Your task to perform on an android device: Add lg ultragear to the cart on target Image 0: 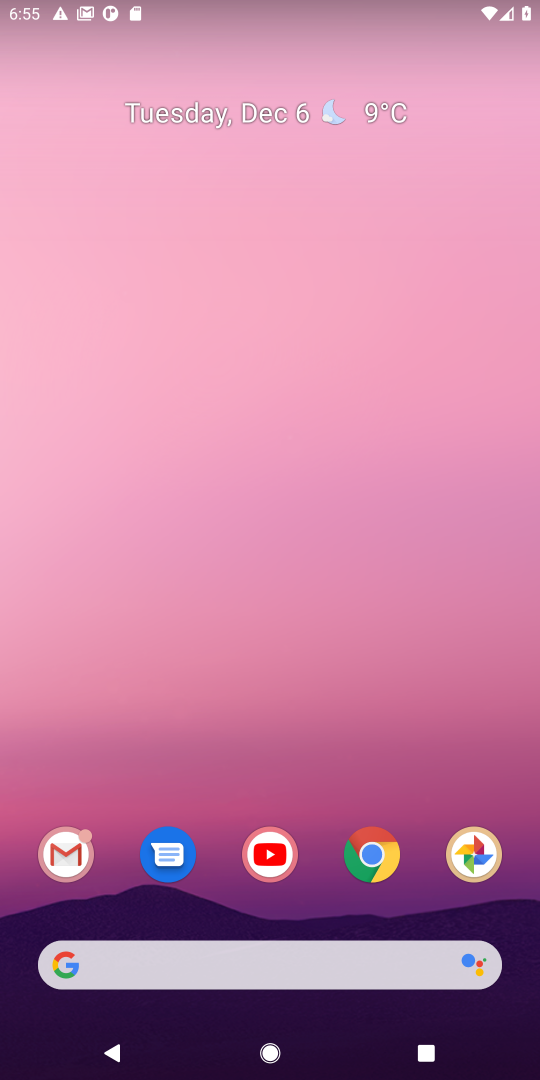
Step 0: click (383, 849)
Your task to perform on an android device: Add lg ultragear to the cart on target Image 1: 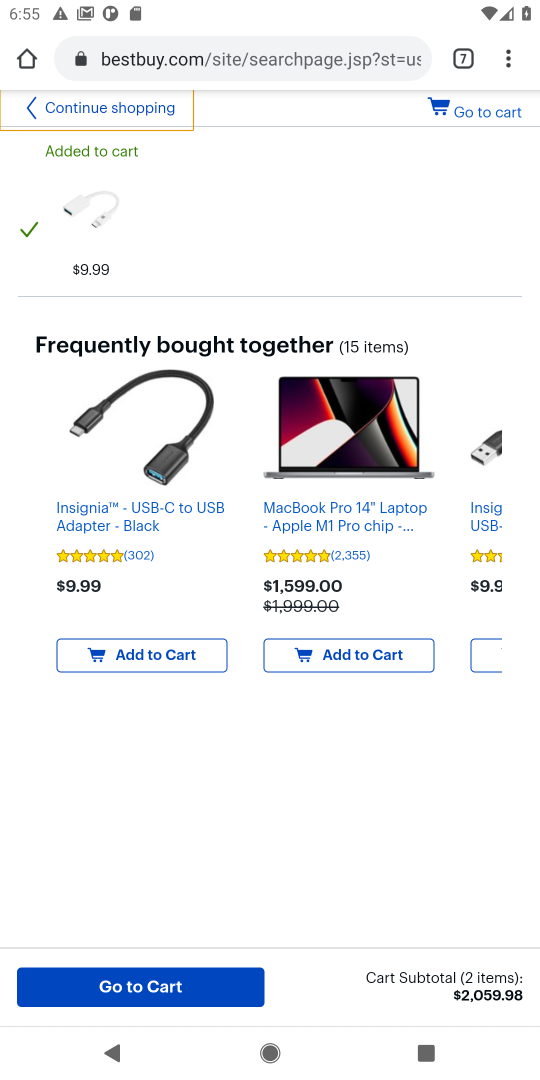
Step 1: click (461, 63)
Your task to perform on an android device: Add lg ultragear to the cart on target Image 2: 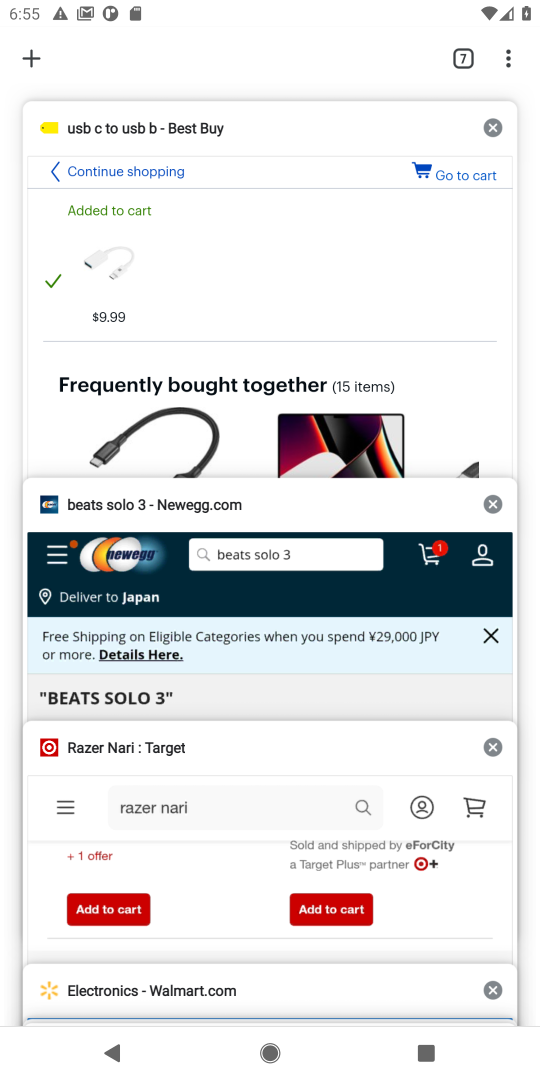
Step 2: click (211, 769)
Your task to perform on an android device: Add lg ultragear to the cart on target Image 3: 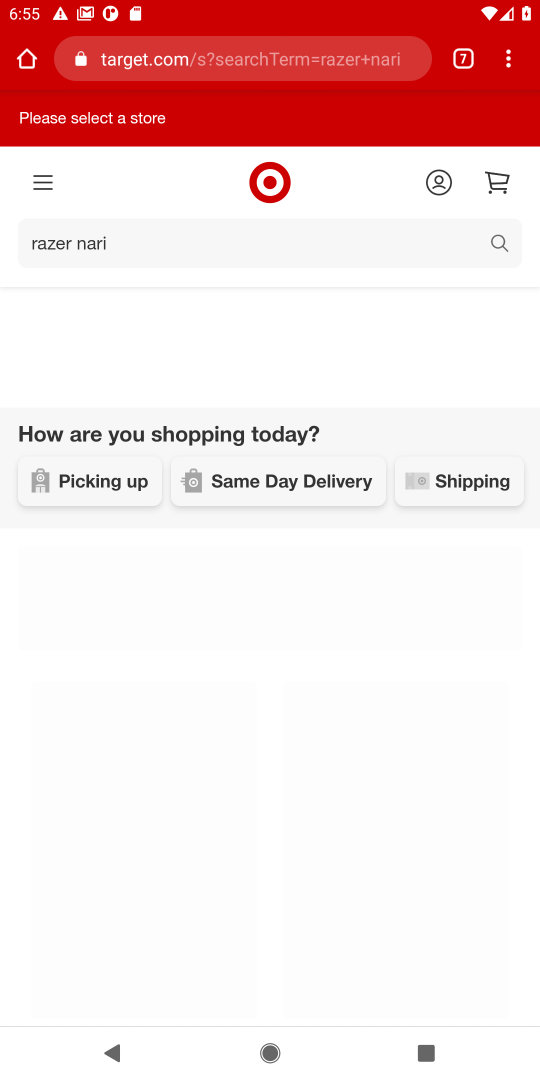
Step 3: click (431, 235)
Your task to perform on an android device: Add lg ultragear to the cart on target Image 4: 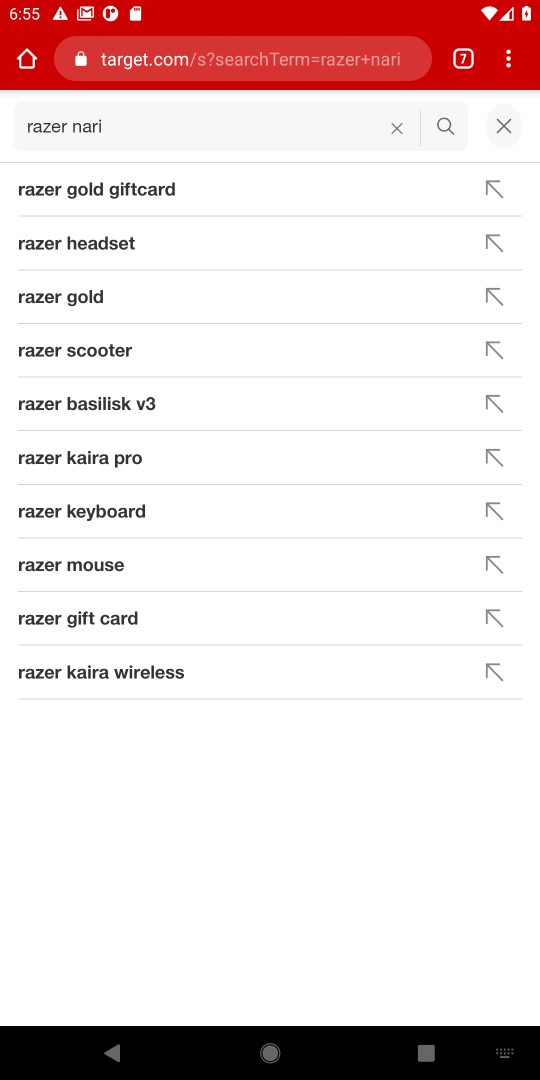
Step 4: click (398, 134)
Your task to perform on an android device: Add lg ultragear to the cart on target Image 5: 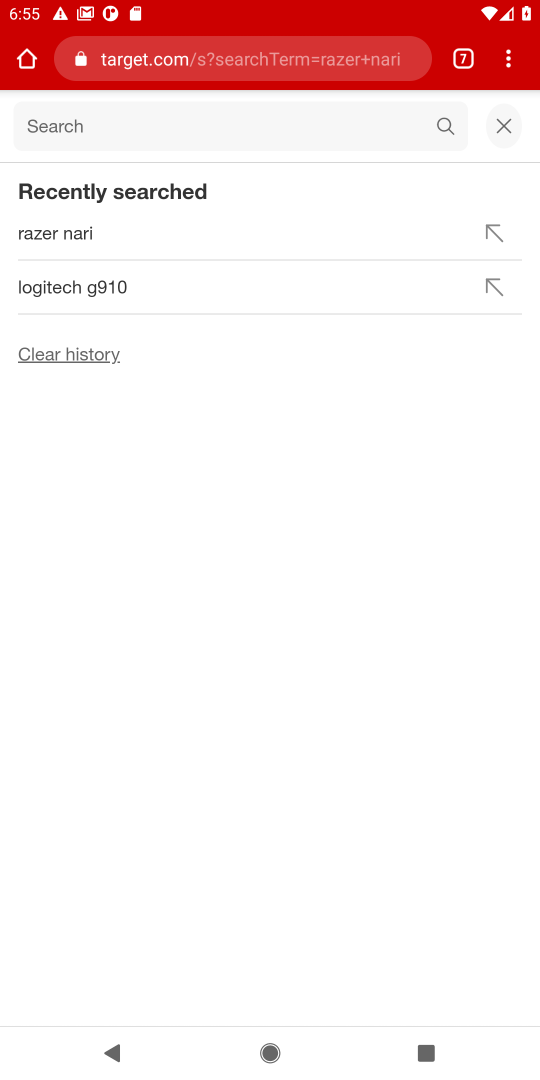
Step 5: type "lg ultragear"
Your task to perform on an android device: Add lg ultragear to the cart on target Image 6: 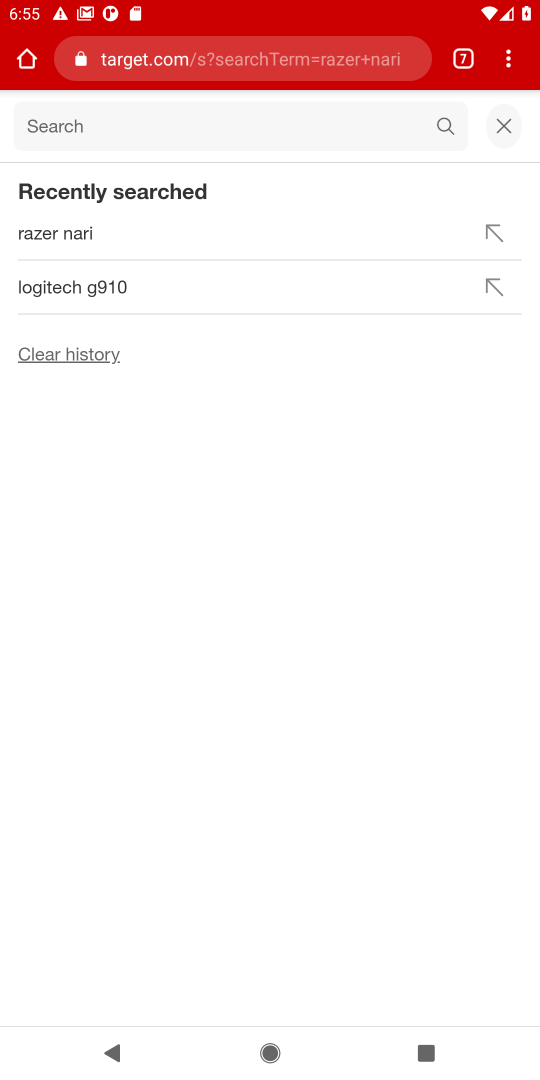
Step 6: click (341, 133)
Your task to perform on an android device: Add lg ultragear to the cart on target Image 7: 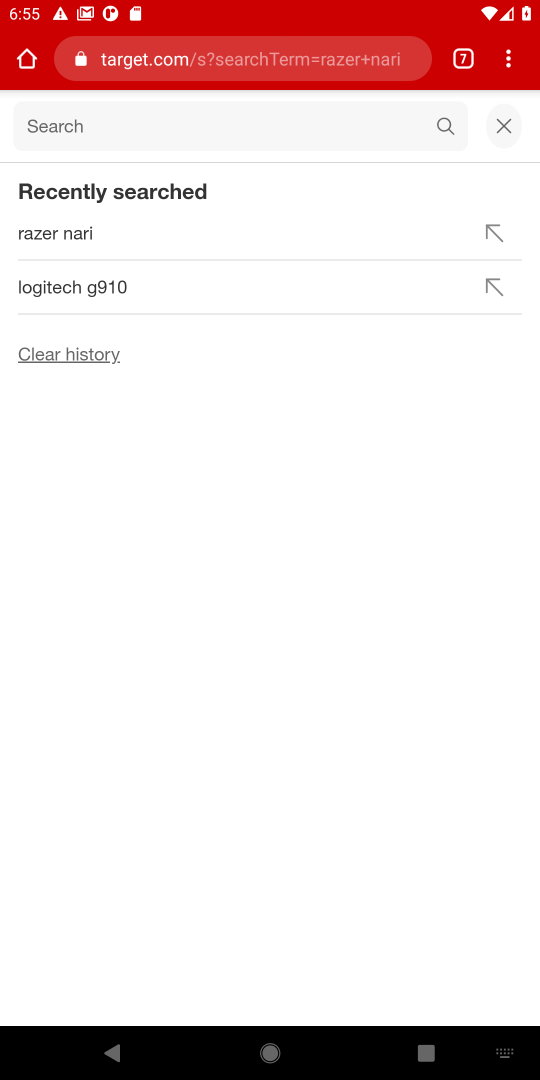
Step 7: type "lg ultragear"
Your task to perform on an android device: Add lg ultragear to the cart on target Image 8: 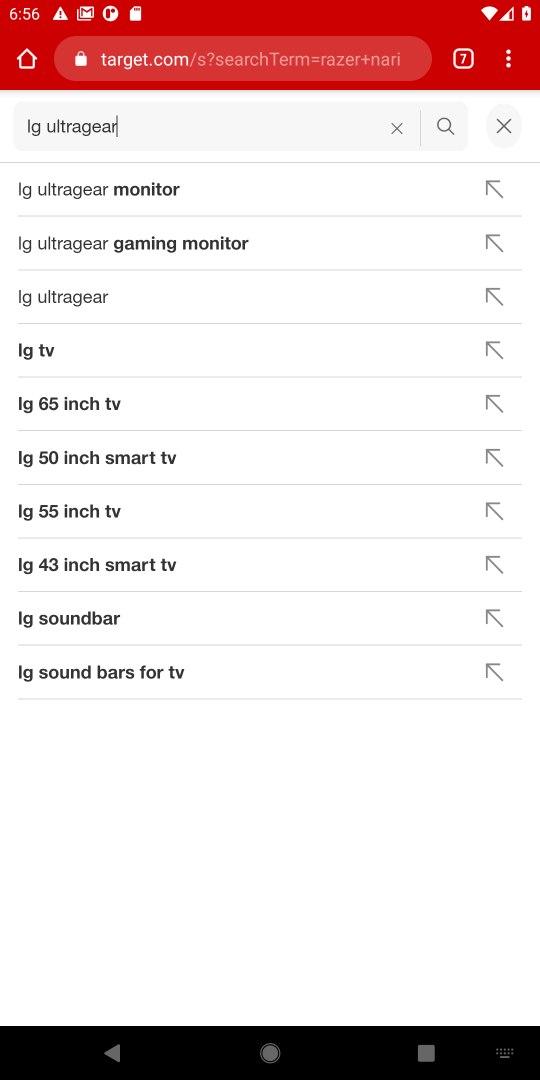
Step 8: click (54, 295)
Your task to perform on an android device: Add lg ultragear to the cart on target Image 9: 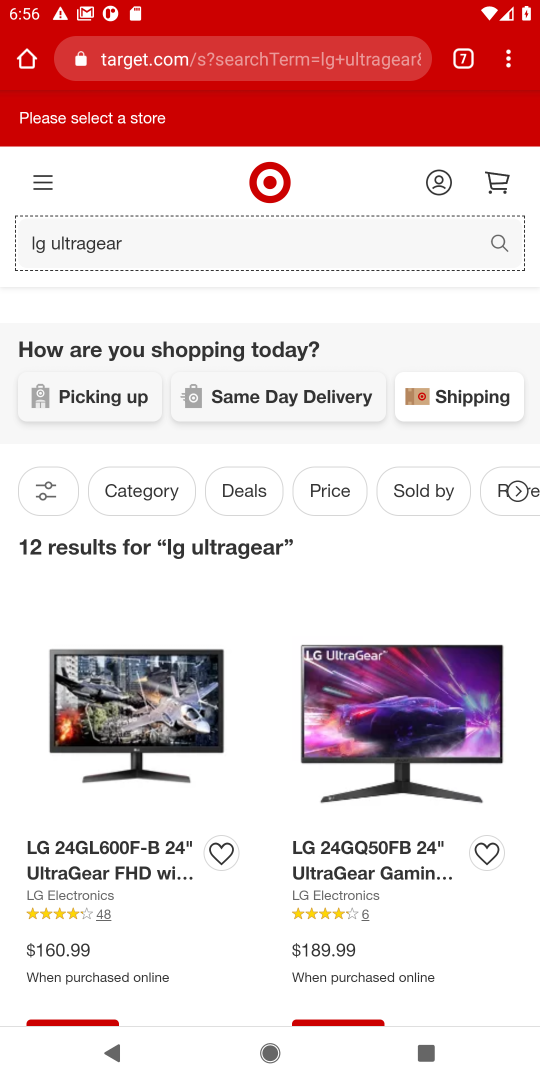
Step 9: drag from (228, 832) to (301, 447)
Your task to perform on an android device: Add lg ultragear to the cart on target Image 10: 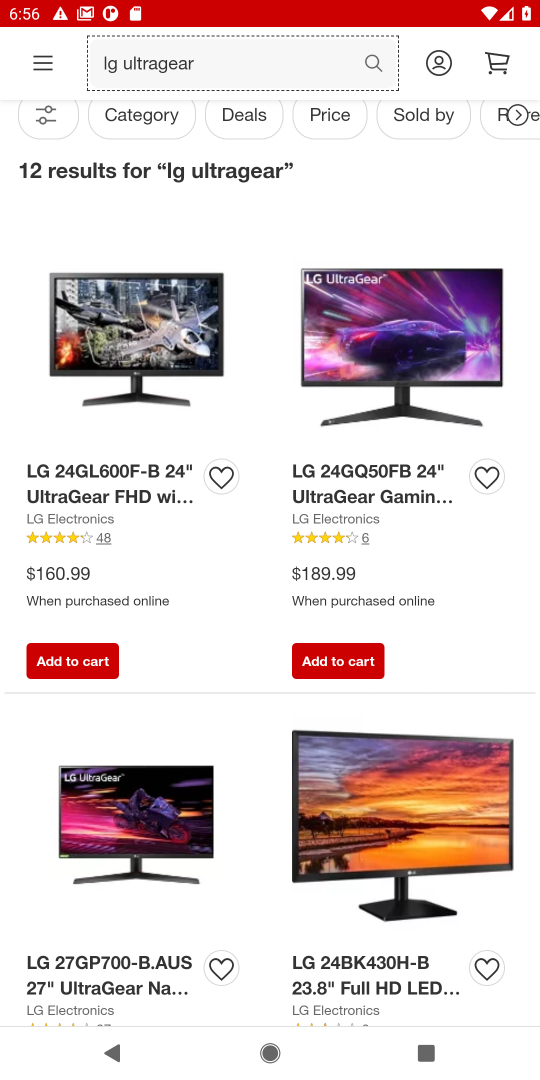
Step 10: click (85, 657)
Your task to perform on an android device: Add lg ultragear to the cart on target Image 11: 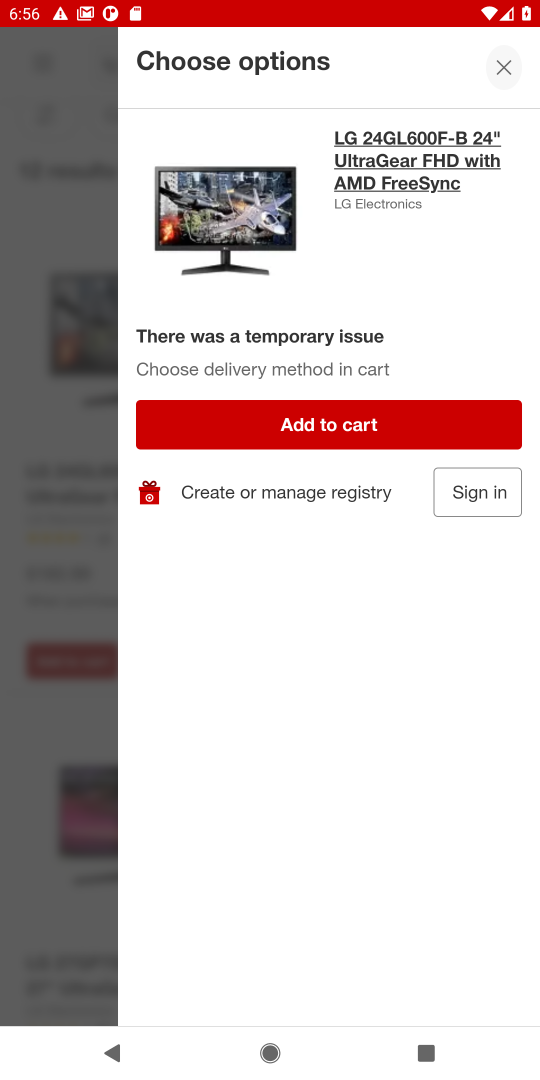
Step 11: click (501, 68)
Your task to perform on an android device: Add lg ultragear to the cart on target Image 12: 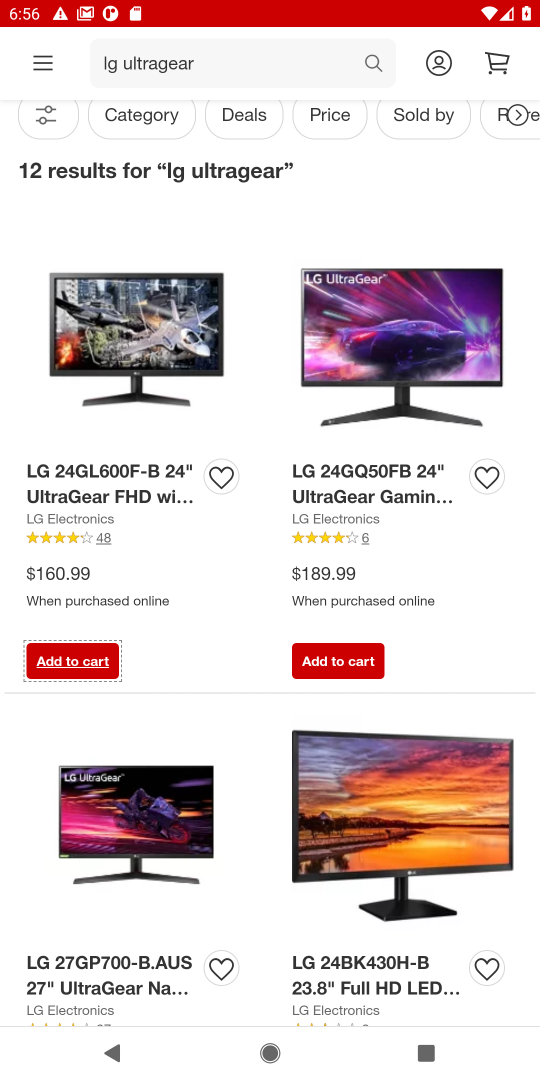
Step 12: click (343, 666)
Your task to perform on an android device: Add lg ultragear to the cart on target Image 13: 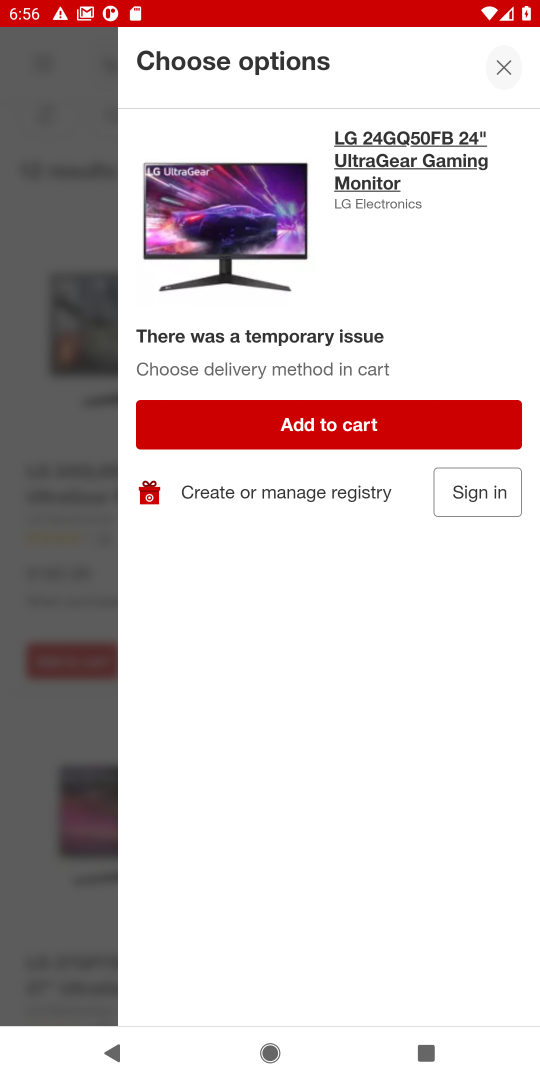
Step 13: click (365, 417)
Your task to perform on an android device: Add lg ultragear to the cart on target Image 14: 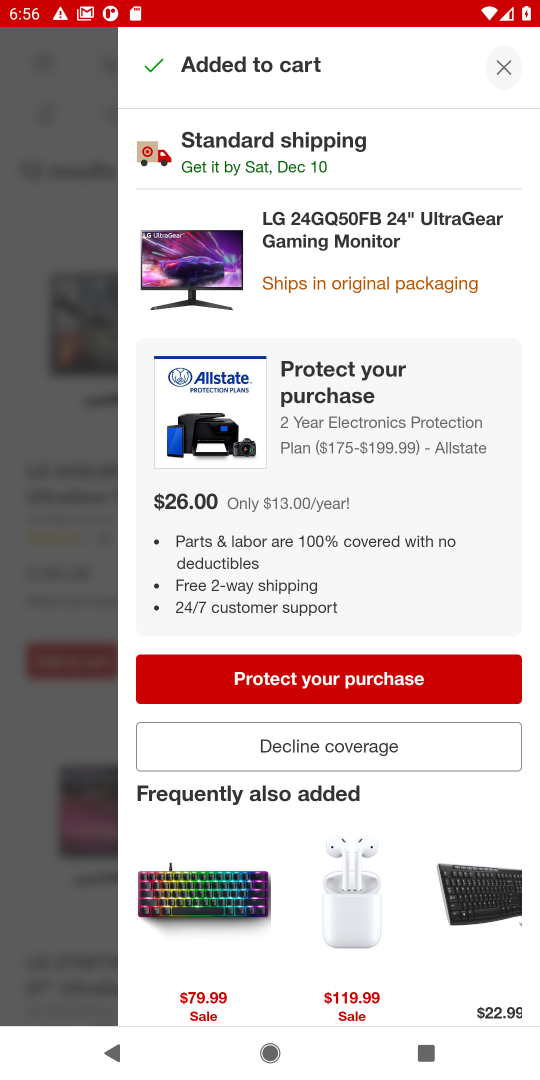
Step 14: task complete